Your task to perform on an android device: stop showing notifications on the lock screen Image 0: 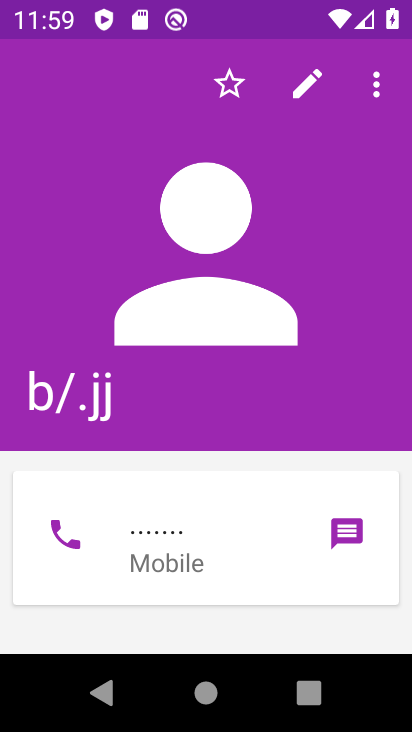
Step 0: press home button
Your task to perform on an android device: stop showing notifications on the lock screen Image 1: 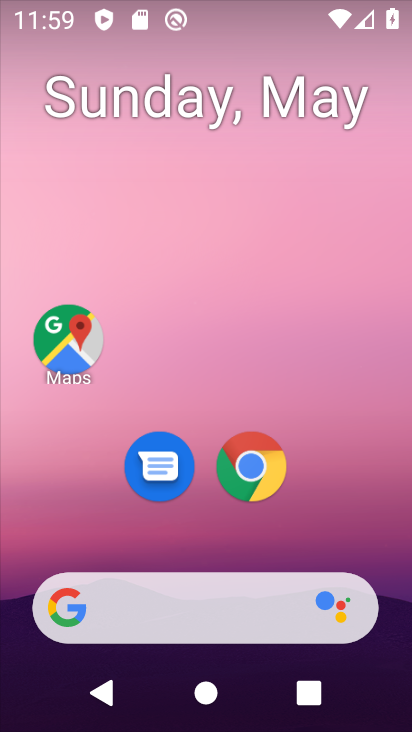
Step 1: drag from (343, 524) to (318, 86)
Your task to perform on an android device: stop showing notifications on the lock screen Image 2: 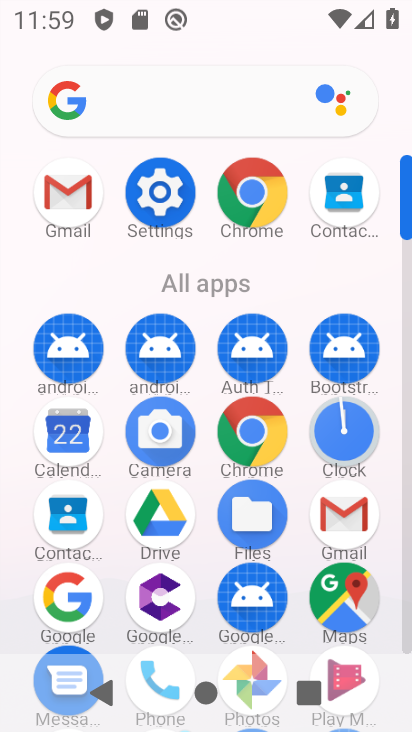
Step 2: click (165, 206)
Your task to perform on an android device: stop showing notifications on the lock screen Image 3: 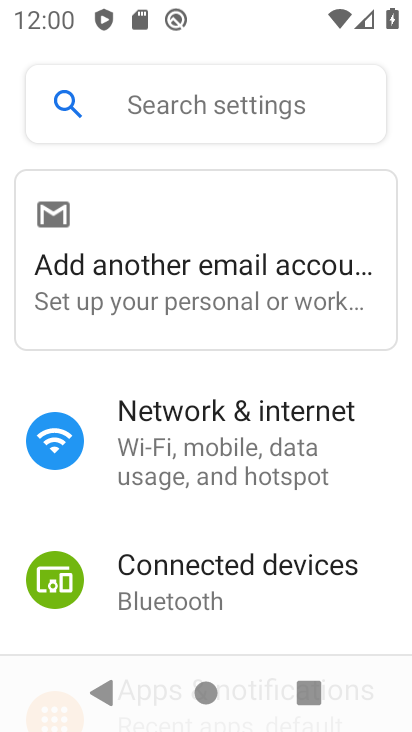
Step 3: drag from (159, 439) to (143, 101)
Your task to perform on an android device: stop showing notifications on the lock screen Image 4: 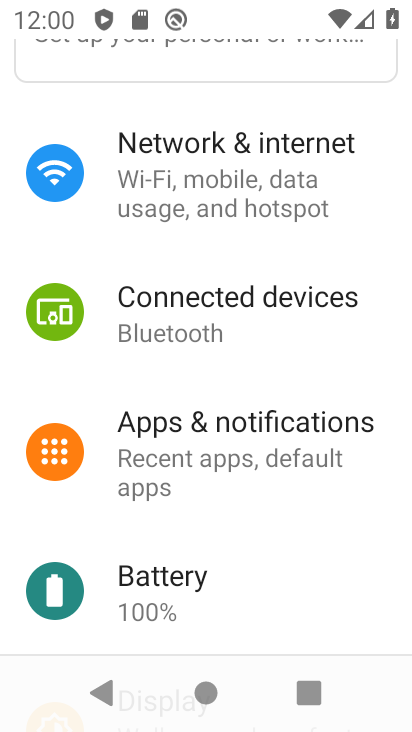
Step 4: click (67, 478)
Your task to perform on an android device: stop showing notifications on the lock screen Image 5: 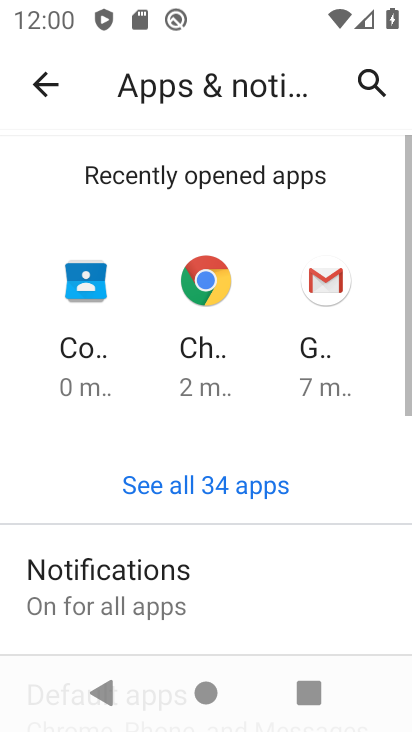
Step 5: drag from (67, 473) to (81, 88)
Your task to perform on an android device: stop showing notifications on the lock screen Image 6: 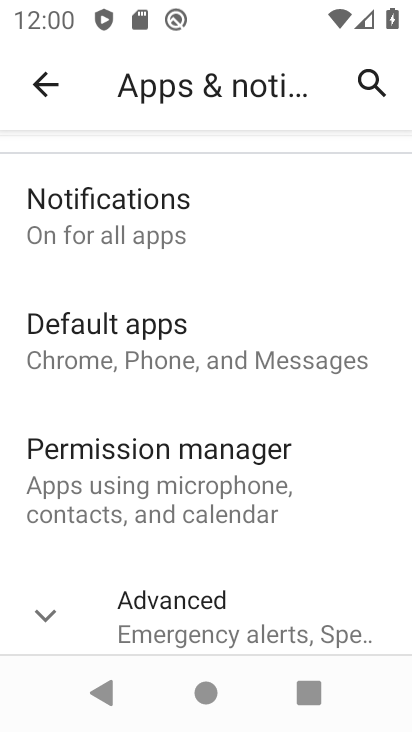
Step 6: click (109, 239)
Your task to perform on an android device: stop showing notifications on the lock screen Image 7: 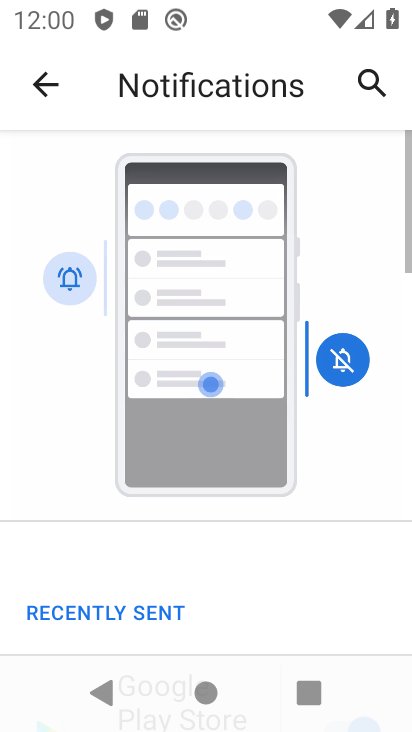
Step 7: drag from (176, 491) to (137, 110)
Your task to perform on an android device: stop showing notifications on the lock screen Image 8: 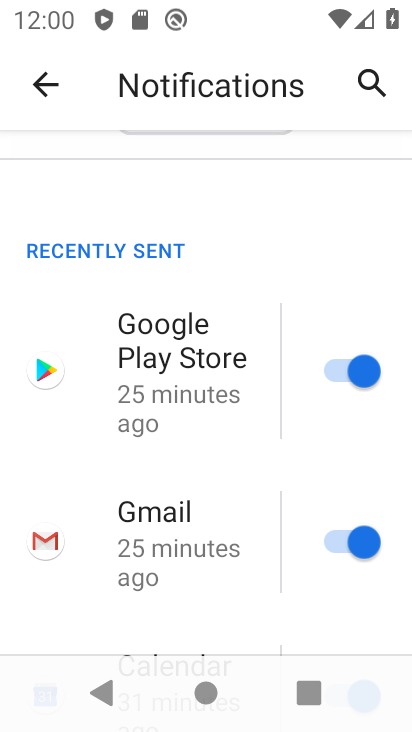
Step 8: drag from (150, 583) to (154, 292)
Your task to perform on an android device: stop showing notifications on the lock screen Image 9: 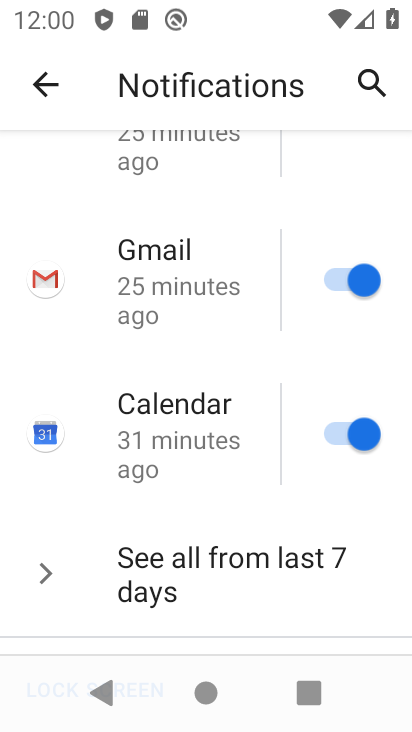
Step 9: drag from (146, 495) to (149, 384)
Your task to perform on an android device: stop showing notifications on the lock screen Image 10: 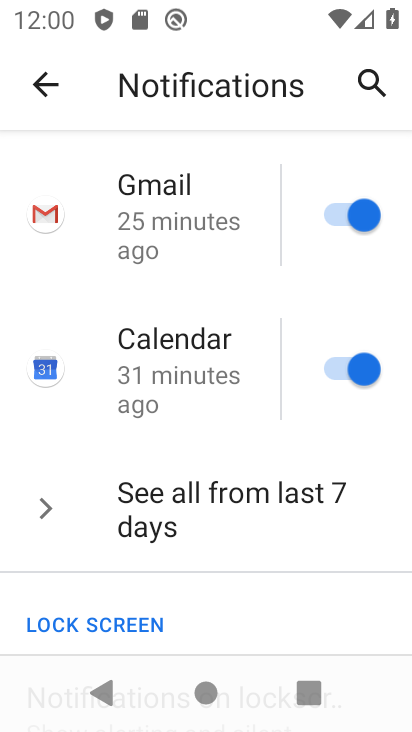
Step 10: drag from (102, 577) to (121, 382)
Your task to perform on an android device: stop showing notifications on the lock screen Image 11: 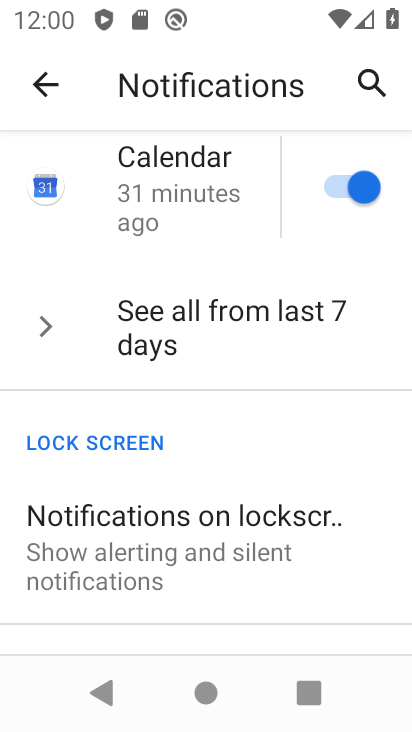
Step 11: drag from (263, 567) to (272, 483)
Your task to perform on an android device: stop showing notifications on the lock screen Image 12: 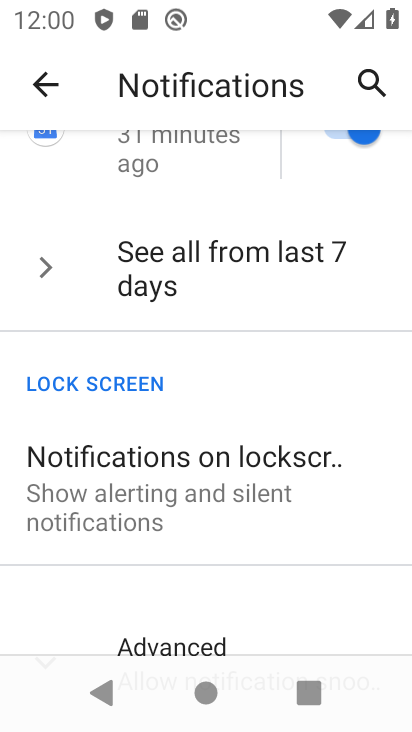
Step 12: drag from (246, 578) to (248, 475)
Your task to perform on an android device: stop showing notifications on the lock screen Image 13: 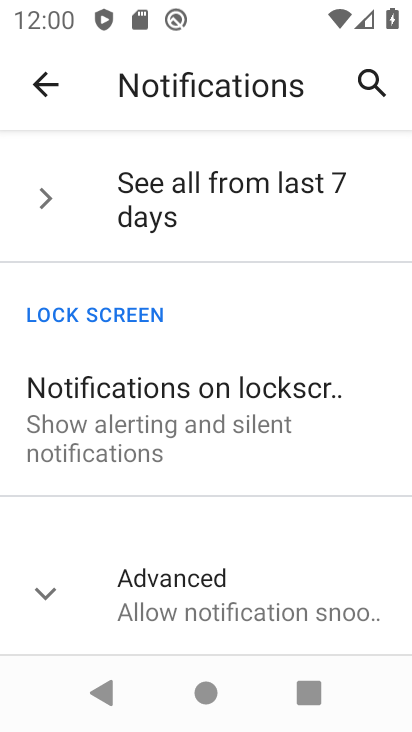
Step 13: click (226, 457)
Your task to perform on an android device: stop showing notifications on the lock screen Image 14: 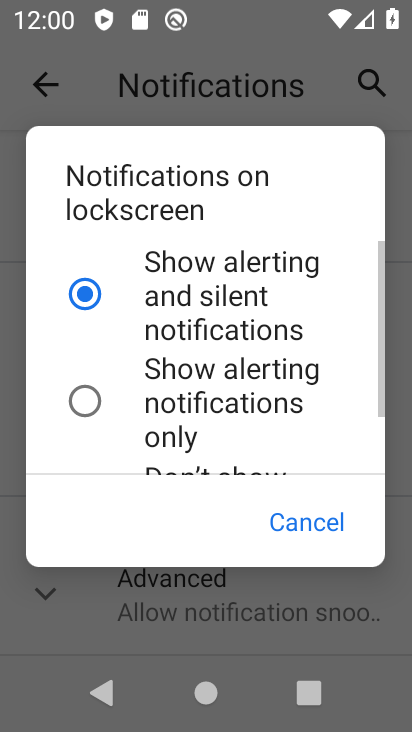
Step 14: drag from (226, 457) to (246, 323)
Your task to perform on an android device: stop showing notifications on the lock screen Image 15: 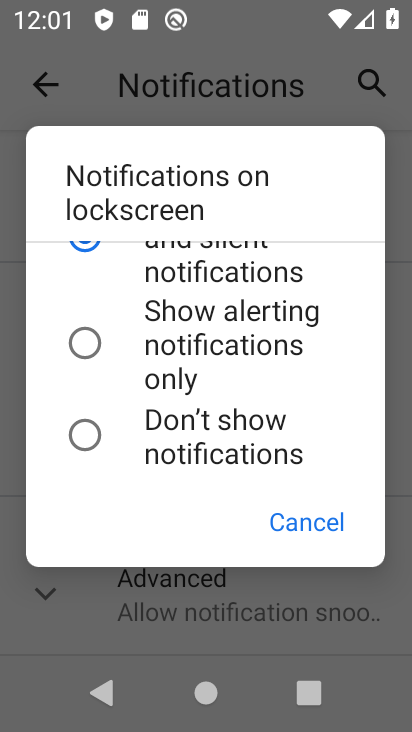
Step 15: click (159, 459)
Your task to perform on an android device: stop showing notifications on the lock screen Image 16: 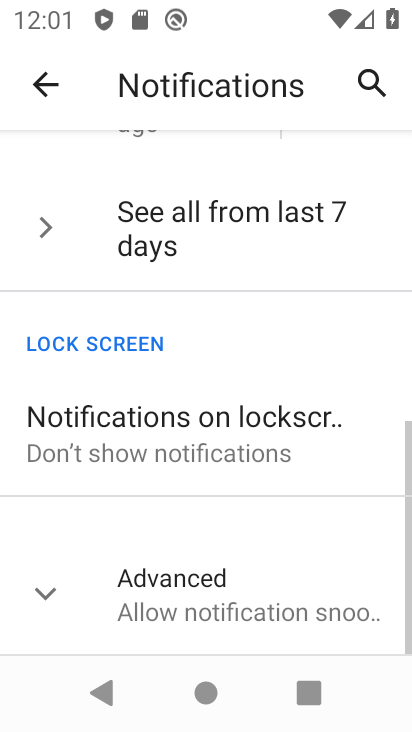
Step 16: task complete